Your task to perform on an android device: turn on notifications settings in the gmail app Image 0: 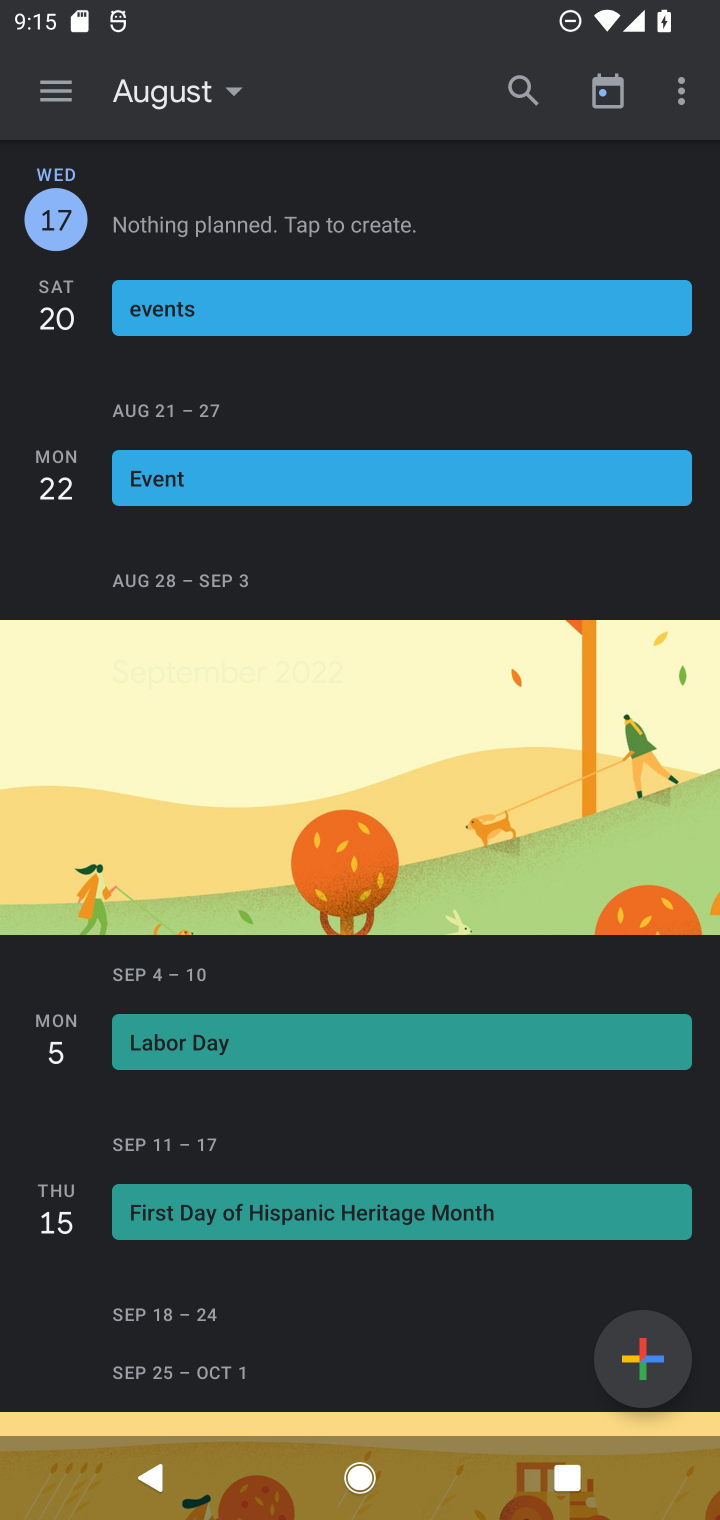
Step 0: press home button
Your task to perform on an android device: turn on notifications settings in the gmail app Image 1: 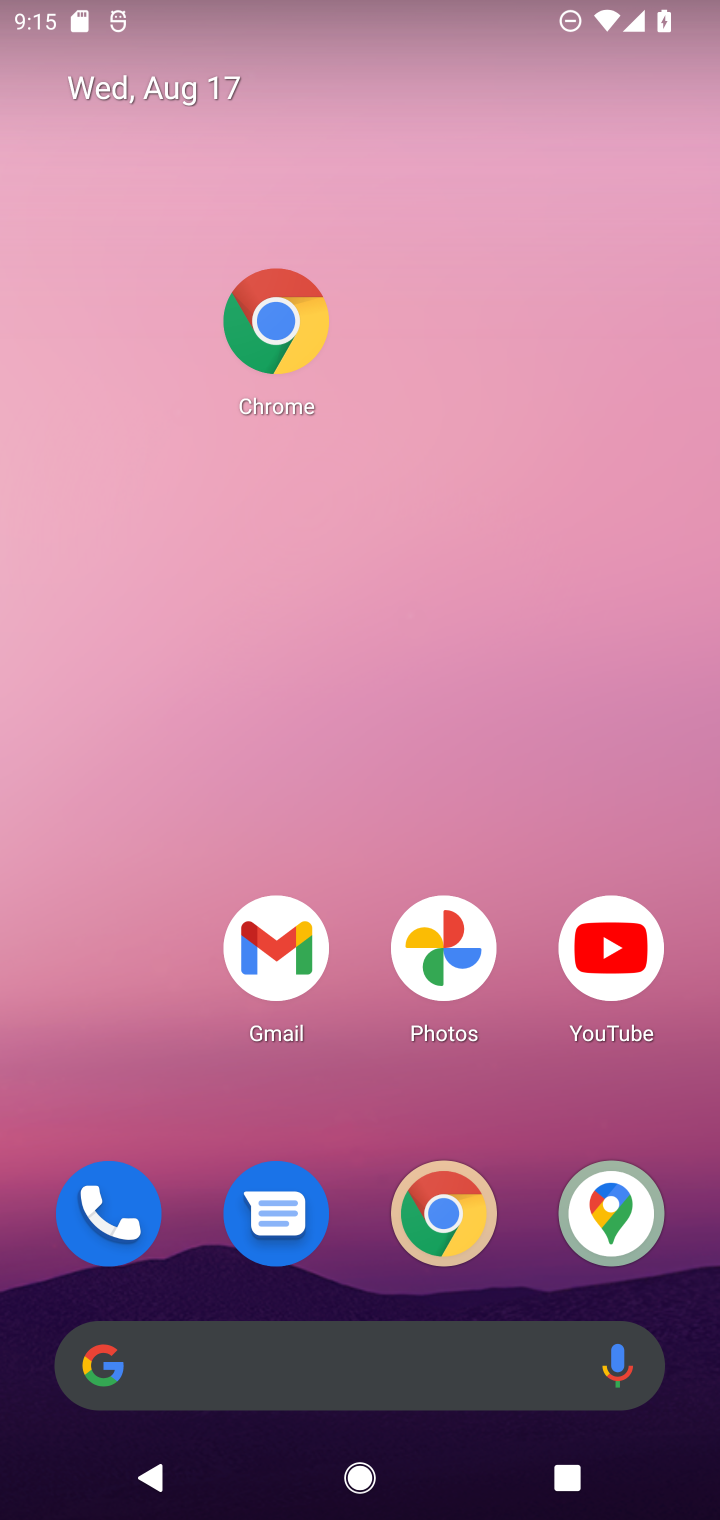
Step 1: drag from (365, 1295) to (360, 182)
Your task to perform on an android device: turn on notifications settings in the gmail app Image 2: 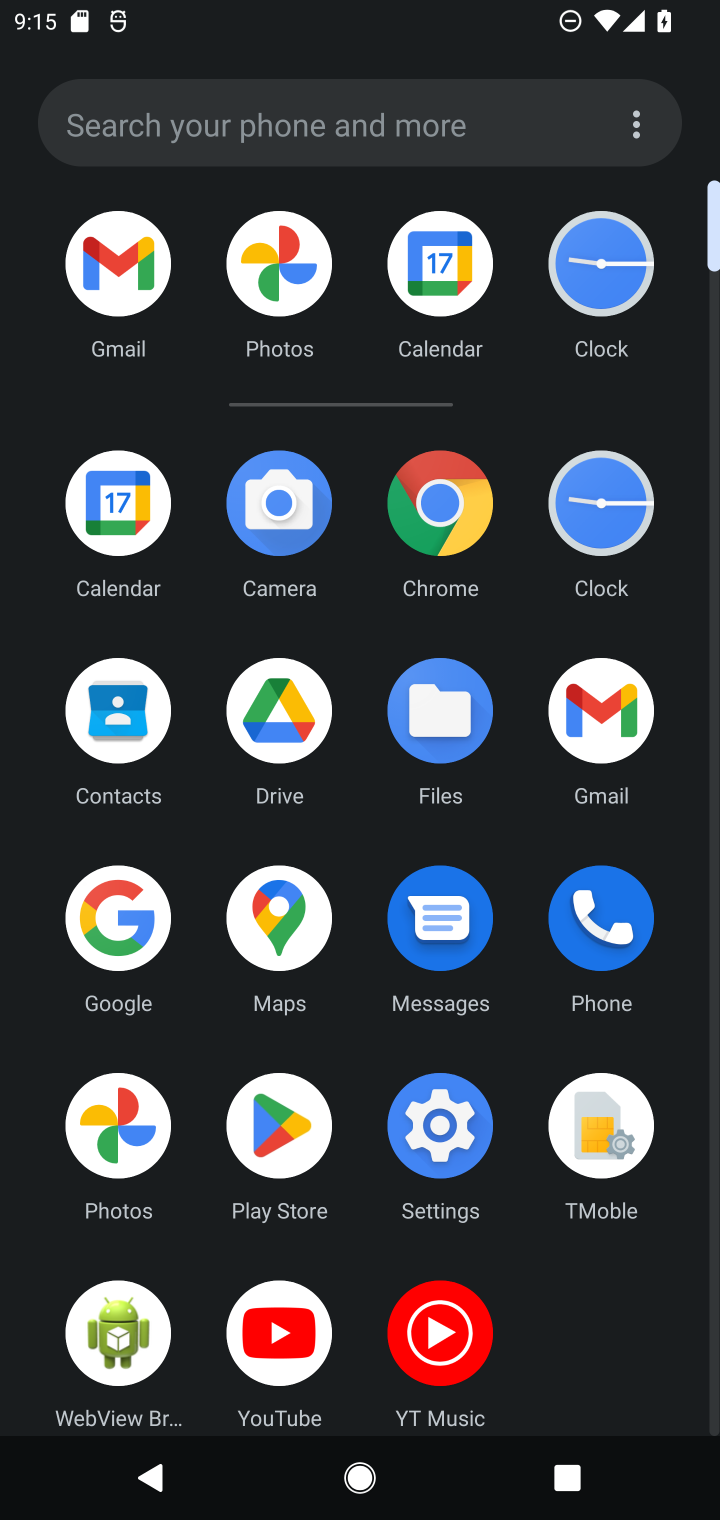
Step 2: click (420, 1190)
Your task to perform on an android device: turn on notifications settings in the gmail app Image 3: 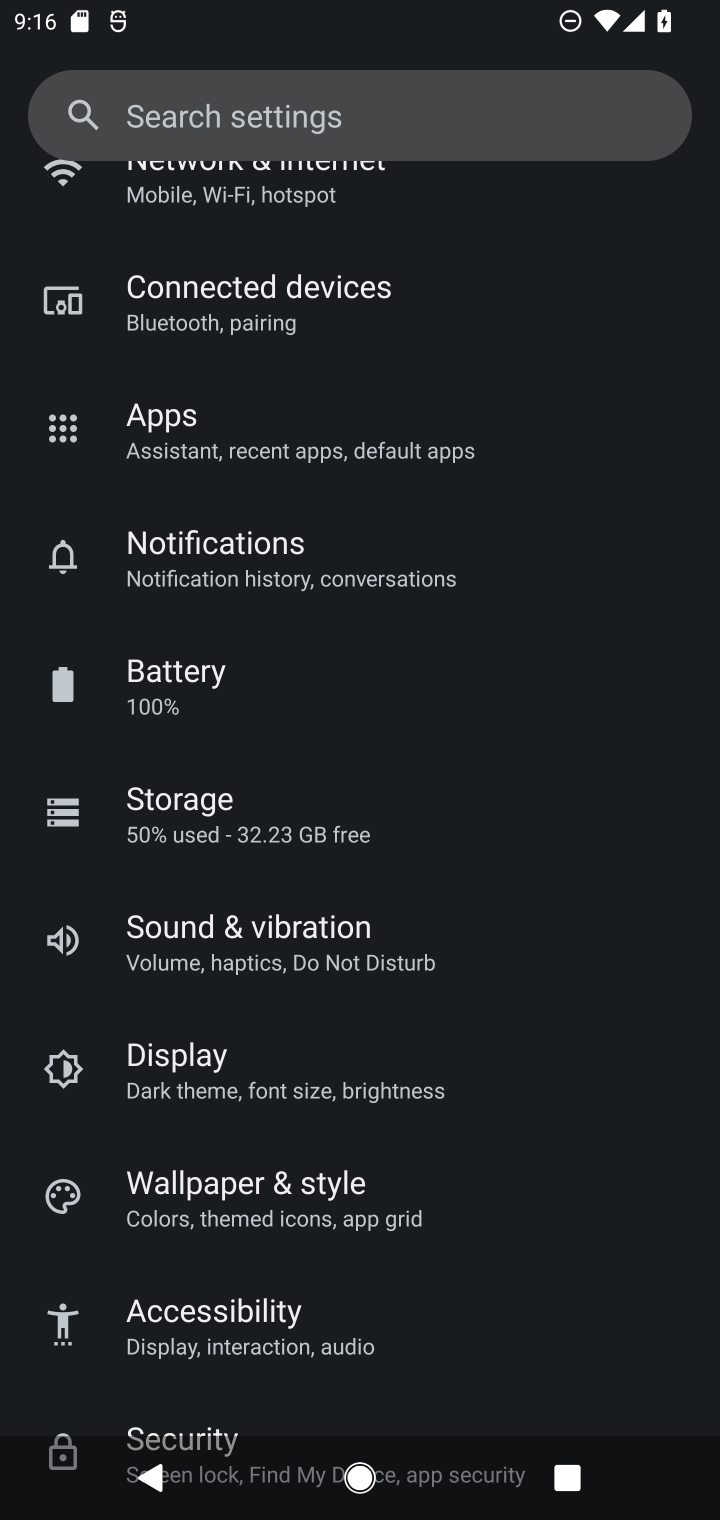
Step 3: click (372, 544)
Your task to perform on an android device: turn on notifications settings in the gmail app Image 4: 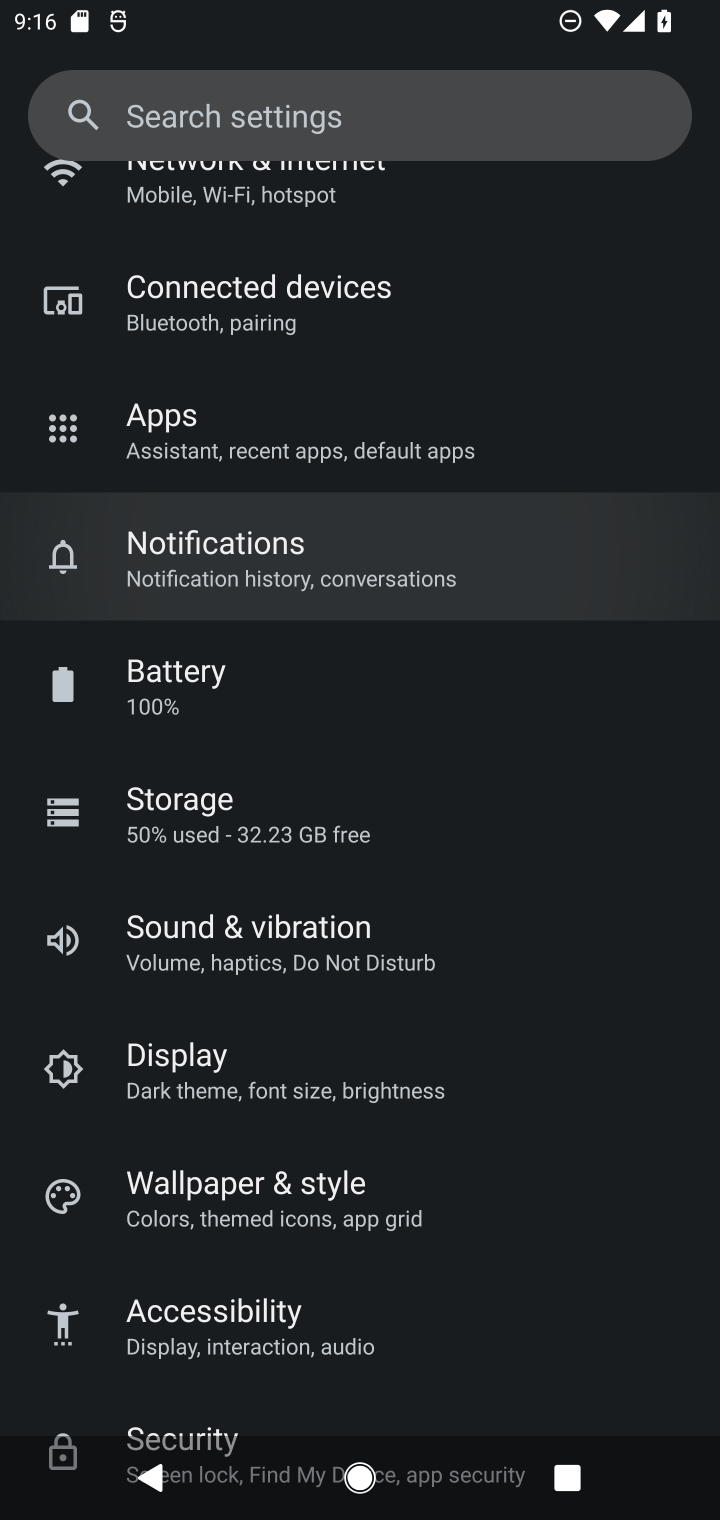
Step 4: task complete